Your task to perform on an android device: turn notification dots on Image 0: 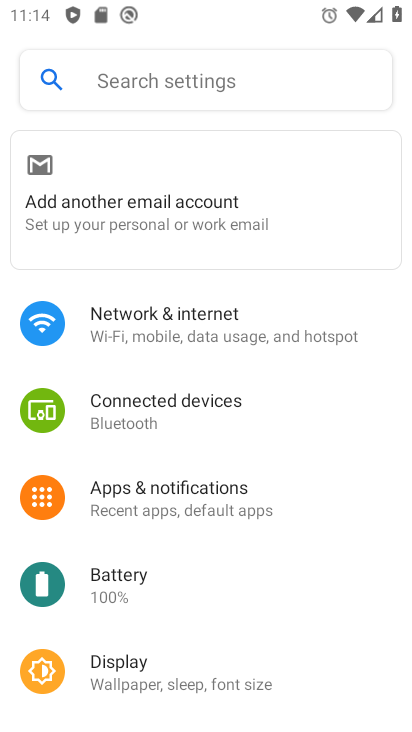
Step 0: press home button
Your task to perform on an android device: turn notification dots on Image 1: 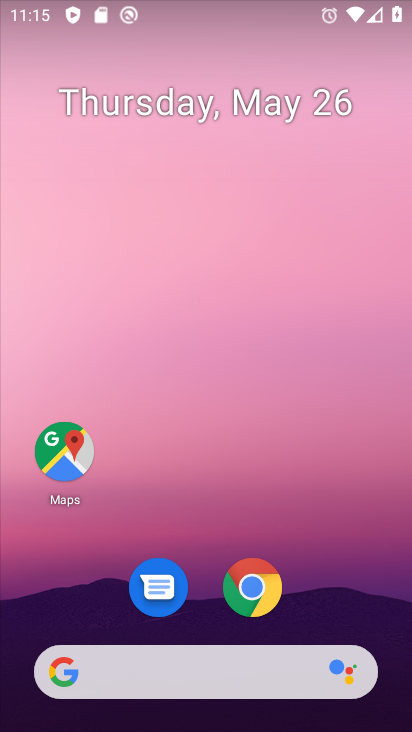
Step 1: drag from (220, 695) to (278, 156)
Your task to perform on an android device: turn notification dots on Image 2: 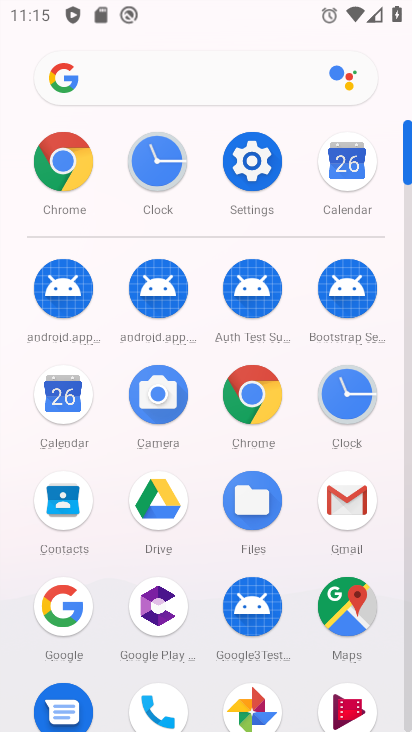
Step 2: click (244, 170)
Your task to perform on an android device: turn notification dots on Image 3: 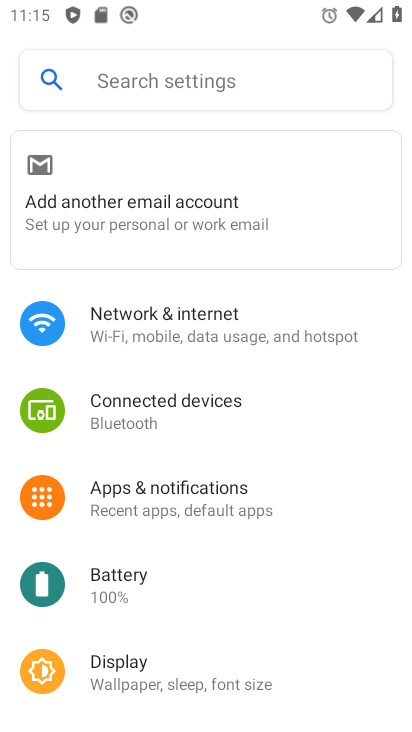
Step 3: click (165, 78)
Your task to perform on an android device: turn notification dots on Image 4: 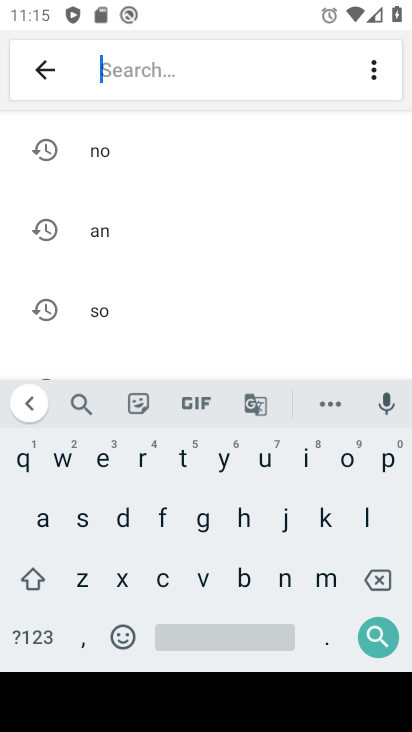
Step 4: click (277, 580)
Your task to perform on an android device: turn notification dots on Image 5: 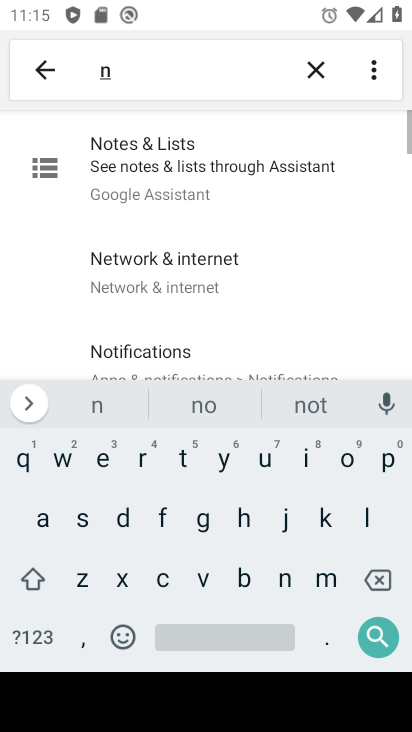
Step 5: click (348, 463)
Your task to perform on an android device: turn notification dots on Image 6: 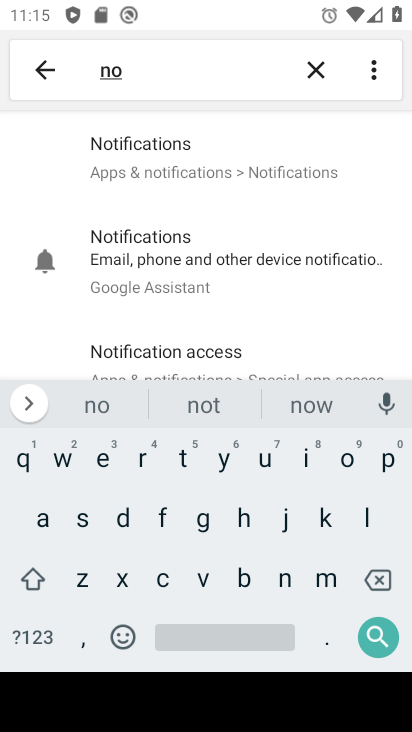
Step 6: click (210, 185)
Your task to perform on an android device: turn notification dots on Image 7: 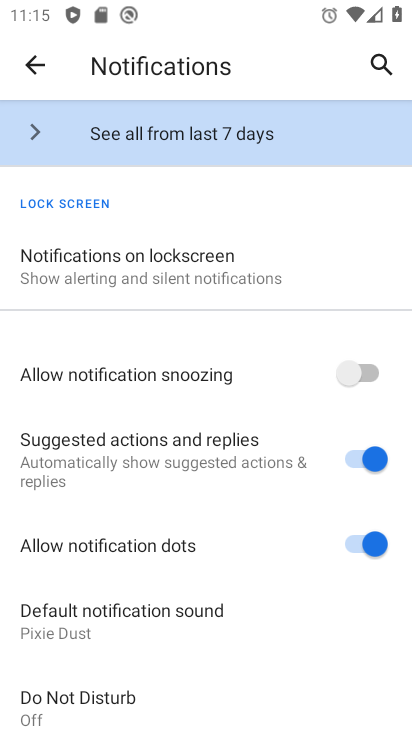
Step 7: click (158, 266)
Your task to perform on an android device: turn notification dots on Image 8: 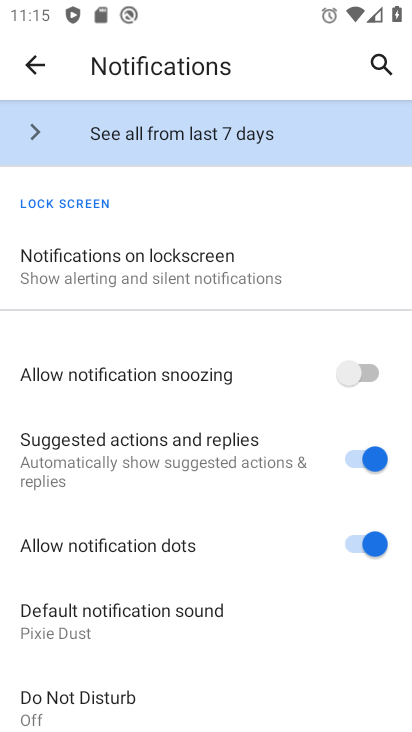
Step 8: task complete